Your task to perform on an android device: Find coffee shops on Maps Image 0: 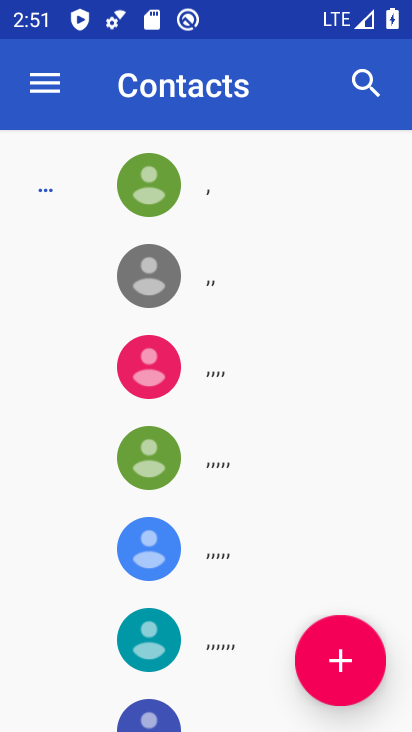
Step 0: press home button
Your task to perform on an android device: Find coffee shops on Maps Image 1: 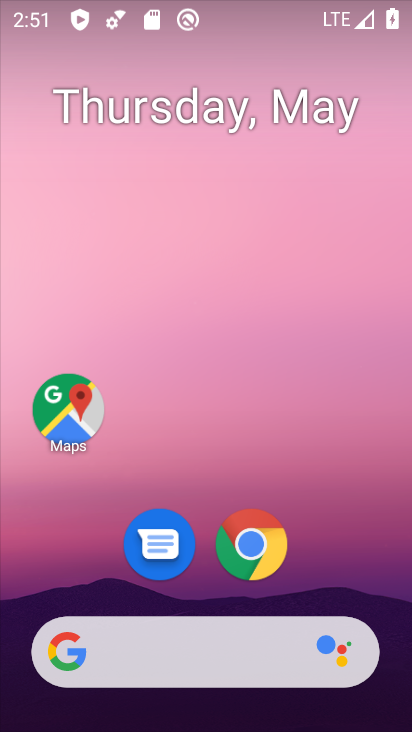
Step 1: click (61, 407)
Your task to perform on an android device: Find coffee shops on Maps Image 2: 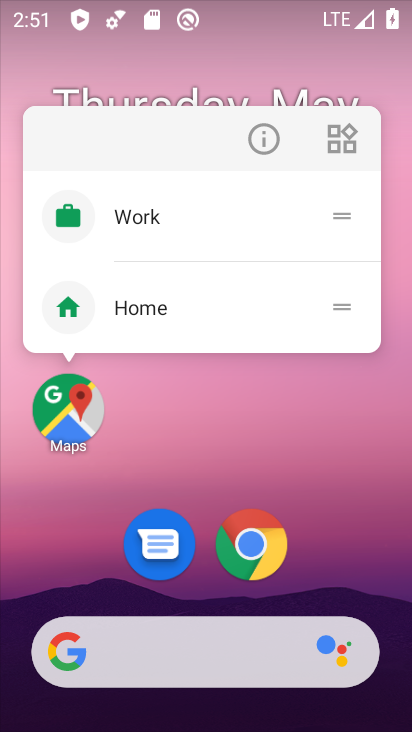
Step 2: click (69, 400)
Your task to perform on an android device: Find coffee shops on Maps Image 3: 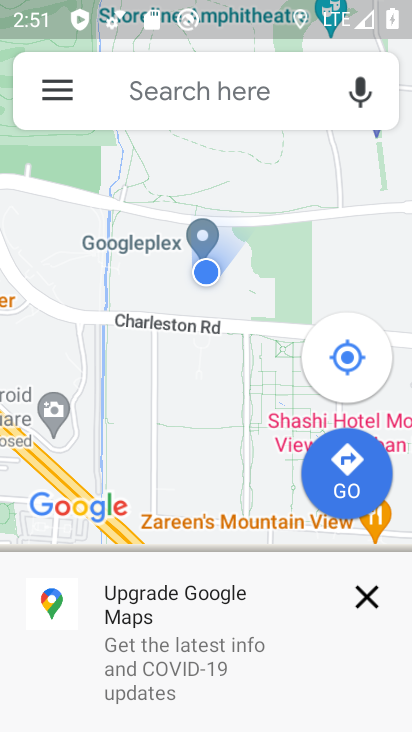
Step 3: click (191, 87)
Your task to perform on an android device: Find coffee shops on Maps Image 4: 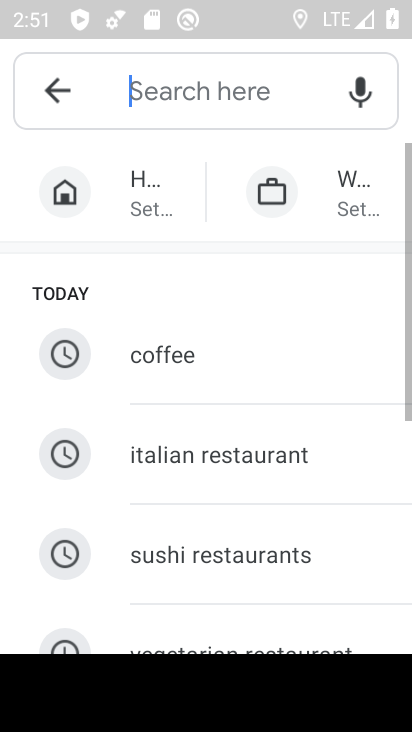
Step 4: click (172, 352)
Your task to perform on an android device: Find coffee shops on Maps Image 5: 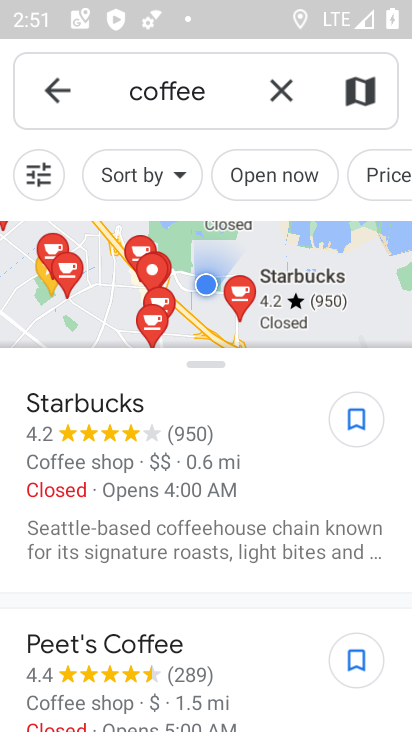
Step 5: task complete